Your task to perform on an android device: toggle sleep mode Image 0: 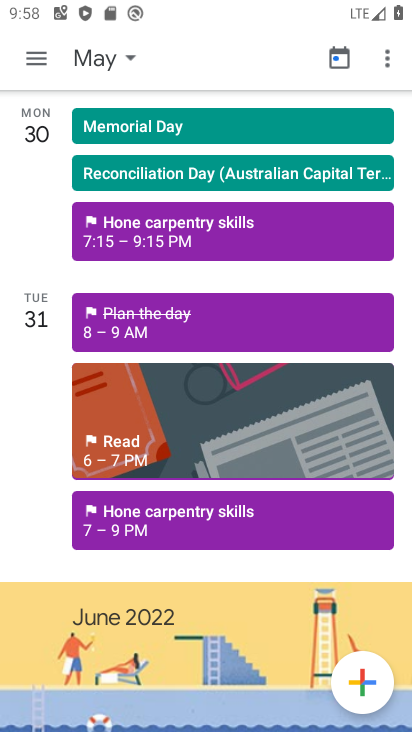
Step 0: press home button
Your task to perform on an android device: toggle sleep mode Image 1: 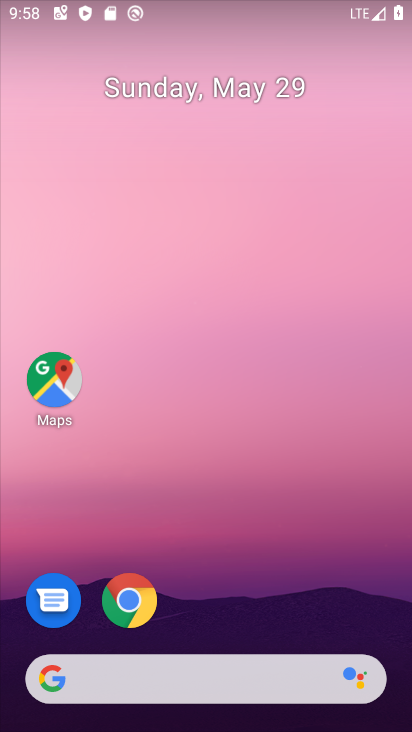
Step 1: drag from (387, 651) to (296, 66)
Your task to perform on an android device: toggle sleep mode Image 2: 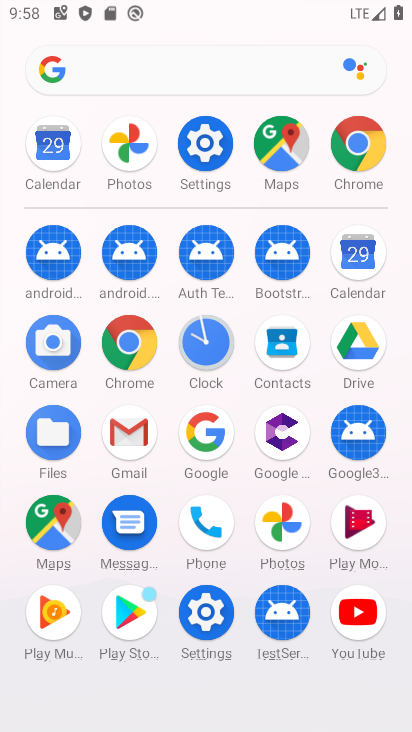
Step 2: click (203, 610)
Your task to perform on an android device: toggle sleep mode Image 3: 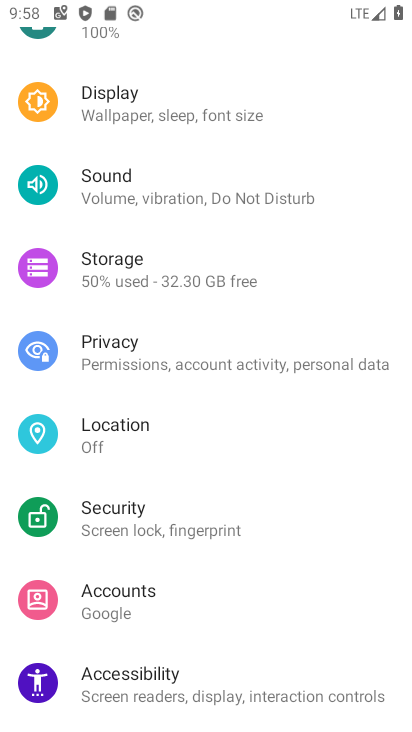
Step 3: click (174, 119)
Your task to perform on an android device: toggle sleep mode Image 4: 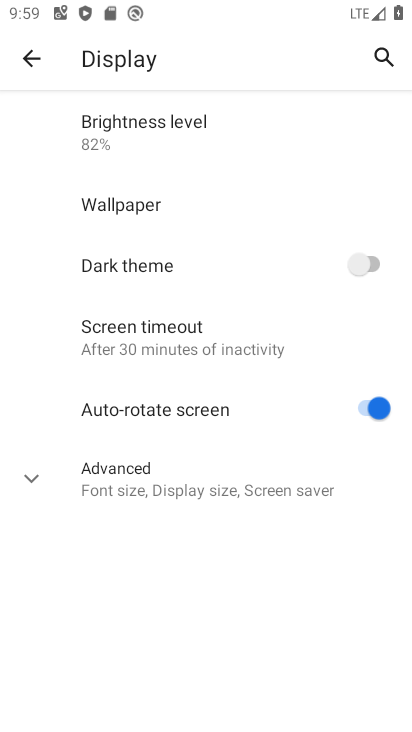
Step 4: task complete